Your task to perform on an android device: Go to internet settings Image 0: 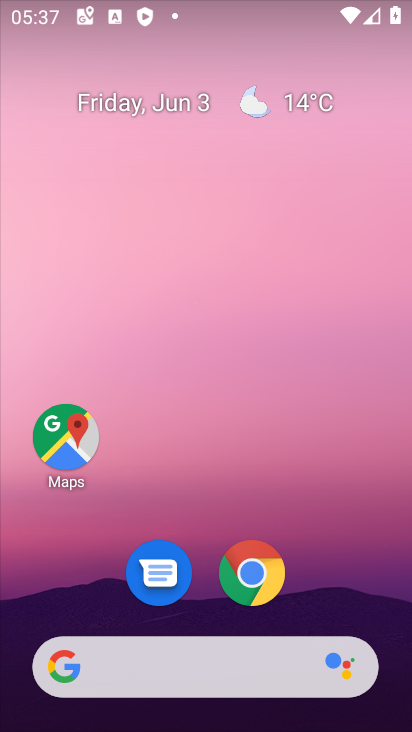
Step 0: click (356, 21)
Your task to perform on an android device: Go to internet settings Image 1: 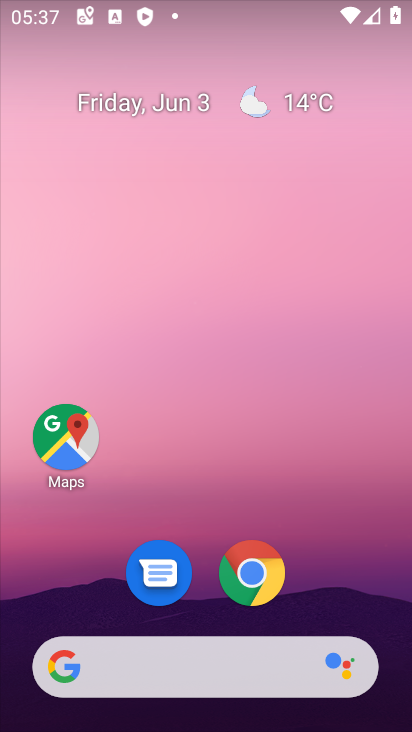
Step 1: press home button
Your task to perform on an android device: Go to internet settings Image 2: 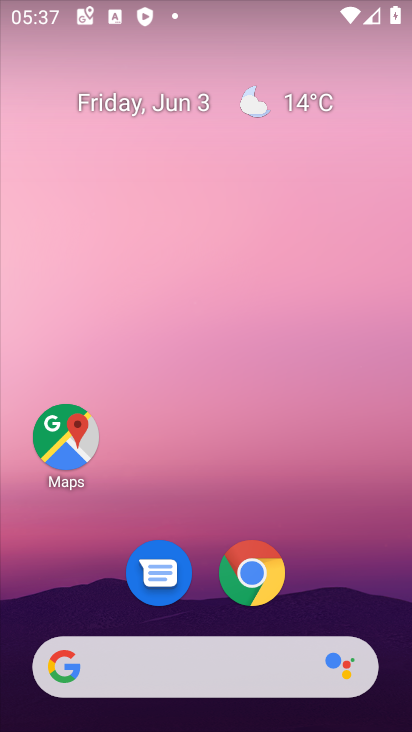
Step 2: drag from (315, 657) to (226, 4)
Your task to perform on an android device: Go to internet settings Image 3: 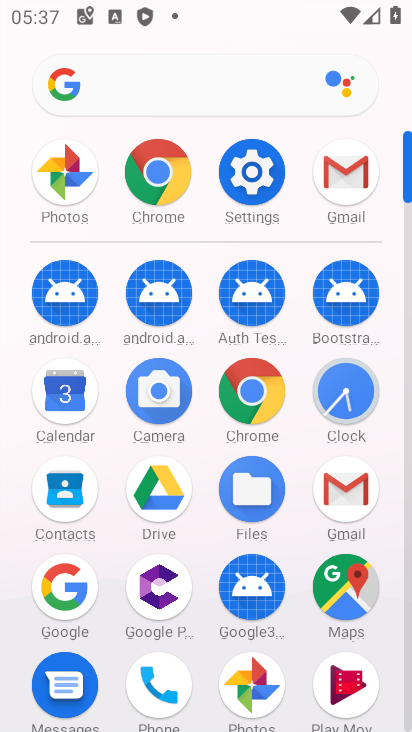
Step 3: click (258, 142)
Your task to perform on an android device: Go to internet settings Image 4: 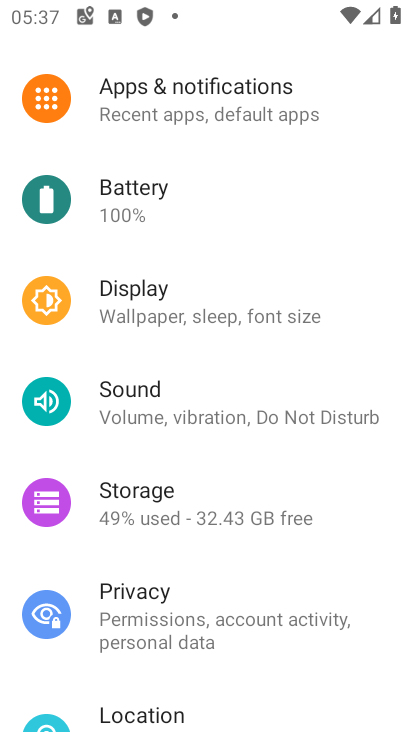
Step 4: drag from (264, 191) to (310, 718)
Your task to perform on an android device: Go to internet settings Image 5: 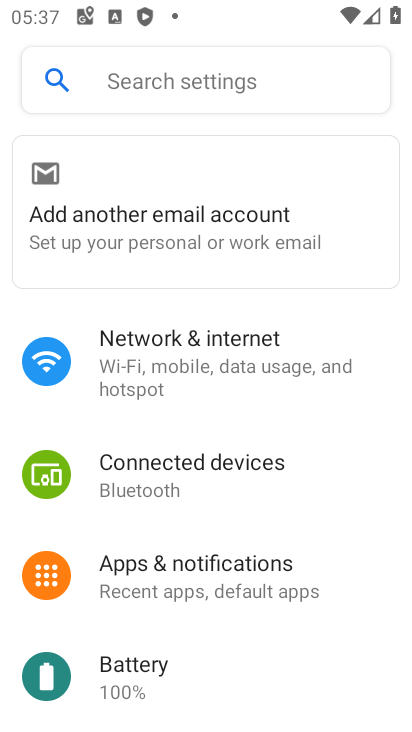
Step 5: click (287, 347)
Your task to perform on an android device: Go to internet settings Image 6: 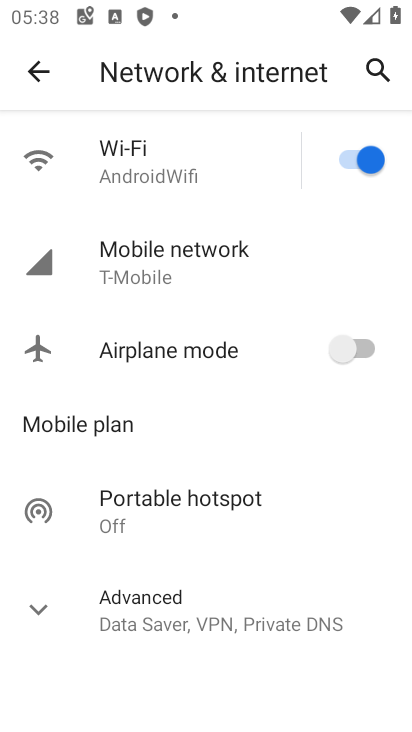
Step 6: task complete